Your task to perform on an android device: Open network settings Image 0: 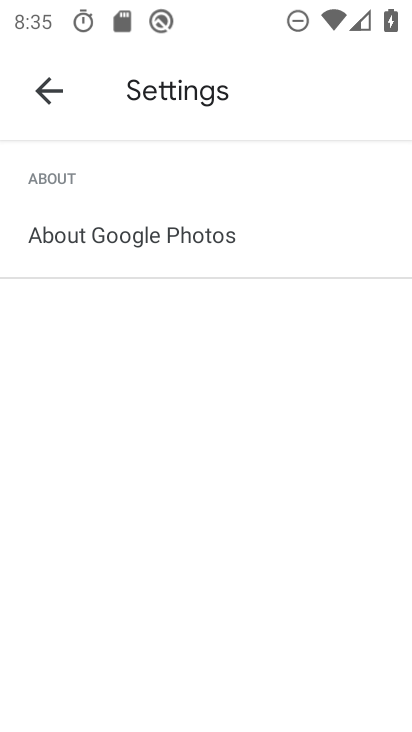
Step 0: press home button
Your task to perform on an android device: Open network settings Image 1: 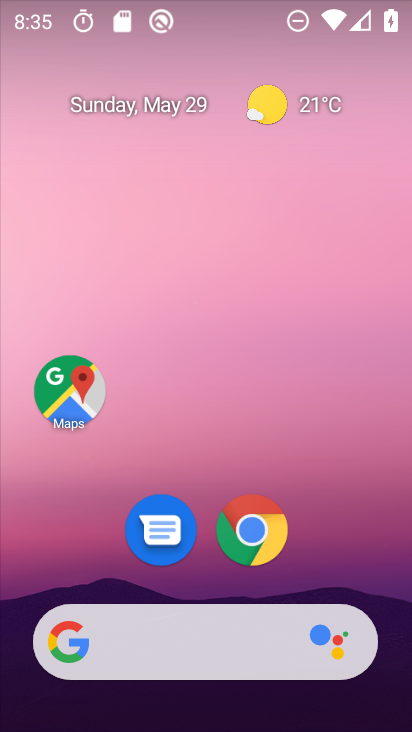
Step 1: drag from (274, 672) to (238, 226)
Your task to perform on an android device: Open network settings Image 2: 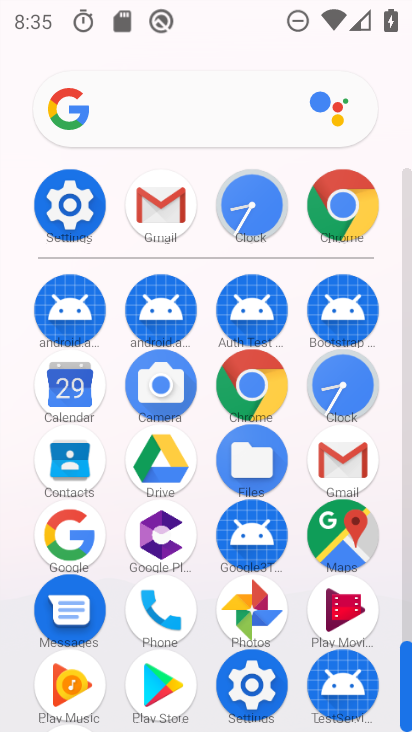
Step 2: click (81, 185)
Your task to perform on an android device: Open network settings Image 3: 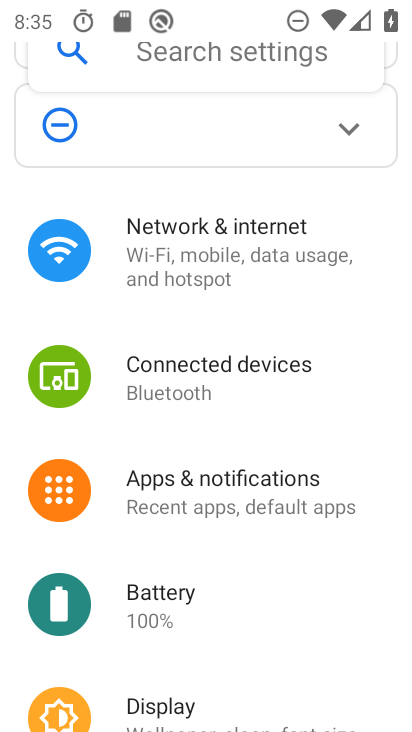
Step 3: click (189, 278)
Your task to perform on an android device: Open network settings Image 4: 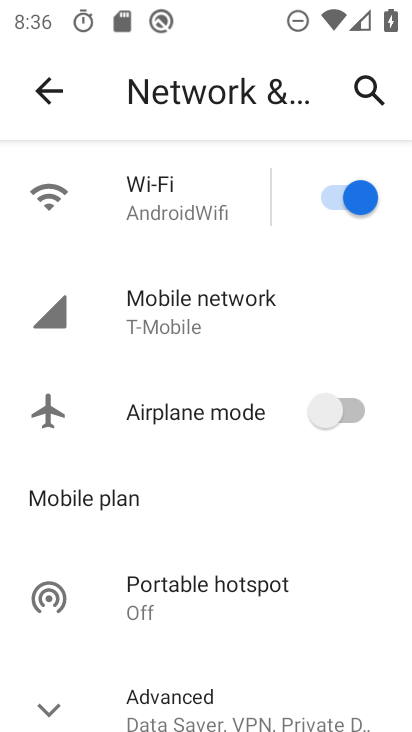
Step 4: task complete